Your task to perform on an android device: Check the settings for the Google Play Books app Image 0: 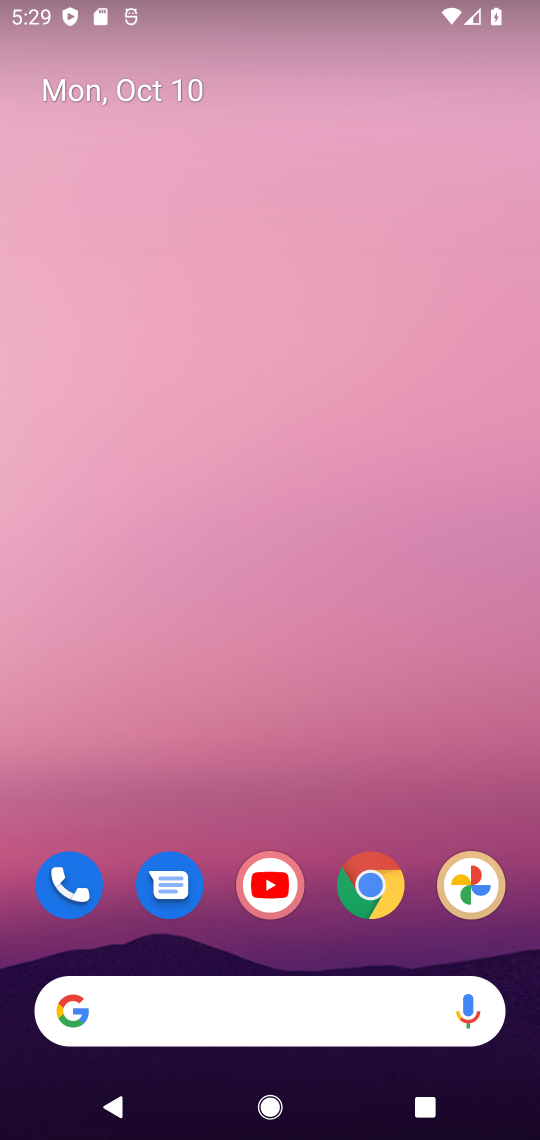
Step 0: drag from (363, 952) to (358, 583)
Your task to perform on an android device: Check the settings for the Google Play Books app Image 1: 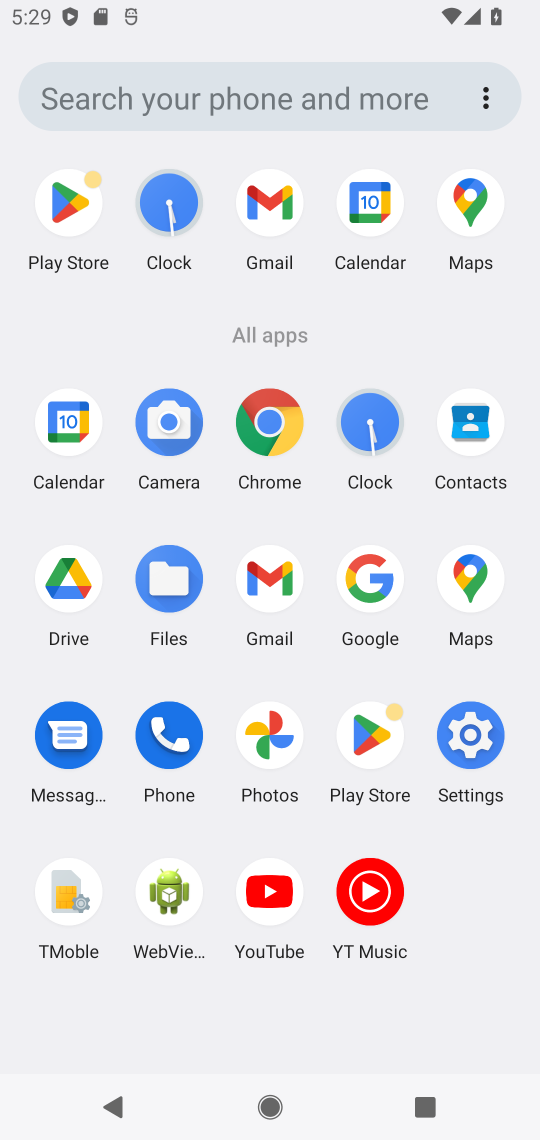
Step 1: click (274, 425)
Your task to perform on an android device: Check the settings for the Google Play Books app Image 2: 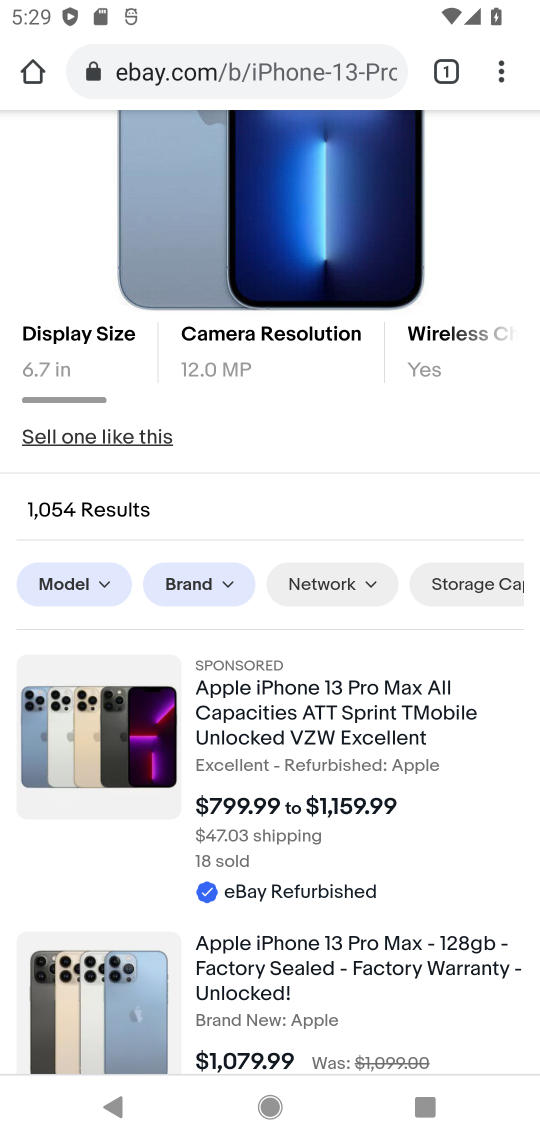
Step 2: click (264, 1112)
Your task to perform on an android device: Check the settings for the Google Play Books app Image 3: 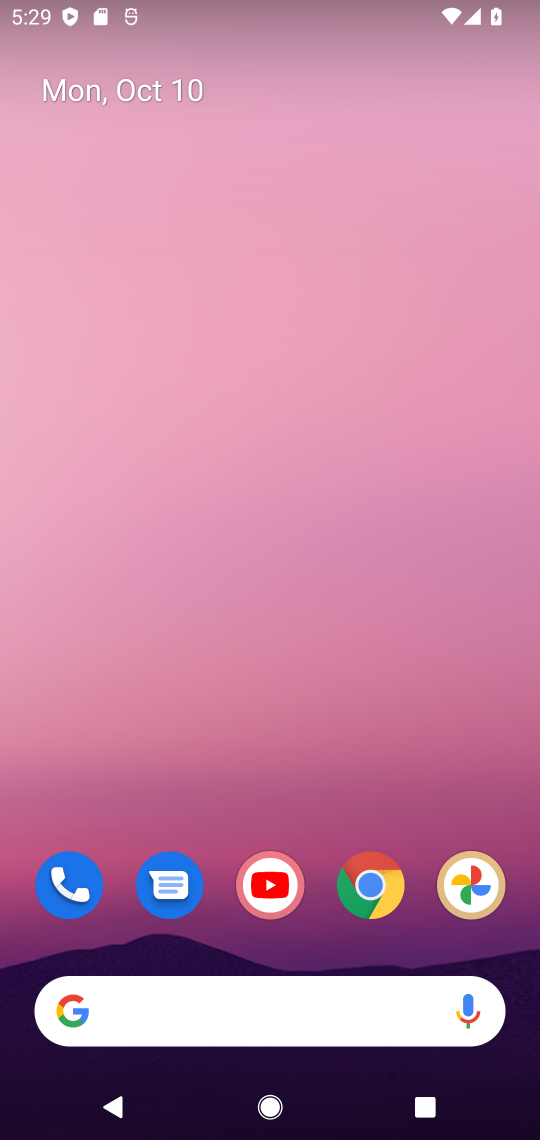
Step 3: drag from (294, 938) to (278, 332)
Your task to perform on an android device: Check the settings for the Google Play Books app Image 4: 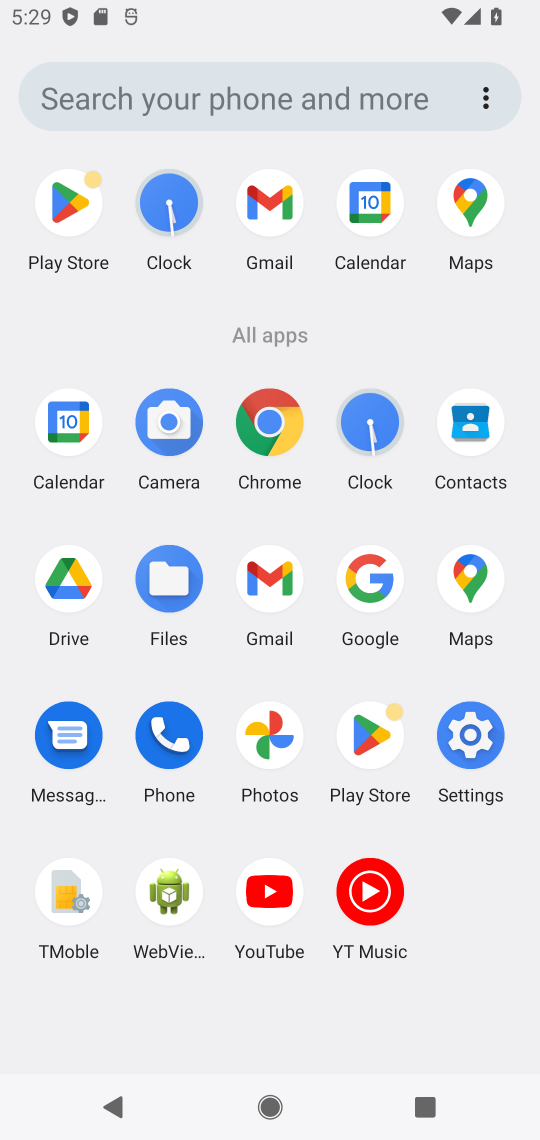
Step 4: click (363, 728)
Your task to perform on an android device: Check the settings for the Google Play Books app Image 5: 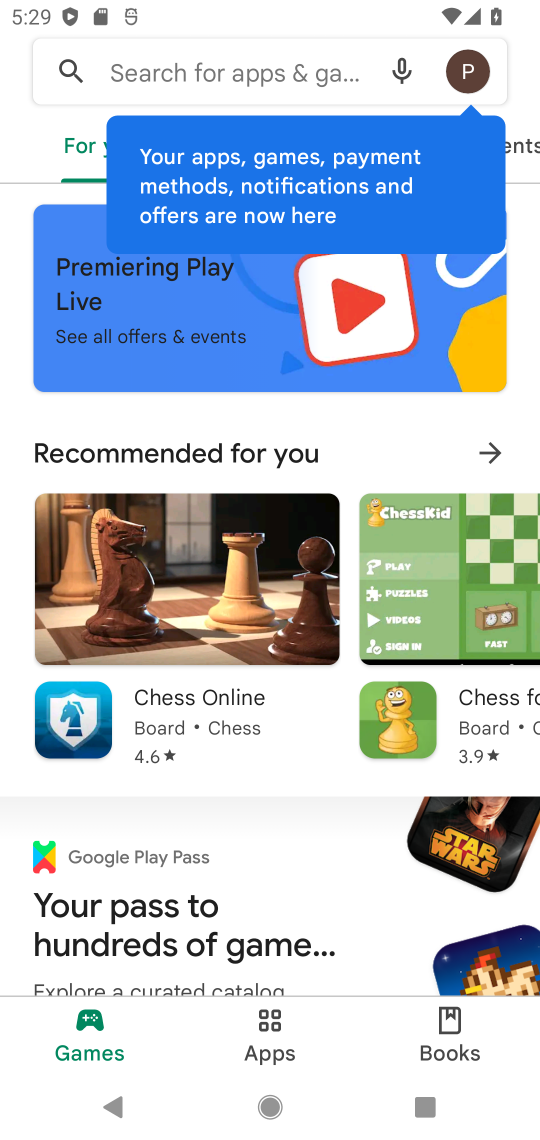
Step 5: click (285, 75)
Your task to perform on an android device: Check the settings for the Google Play Books app Image 6: 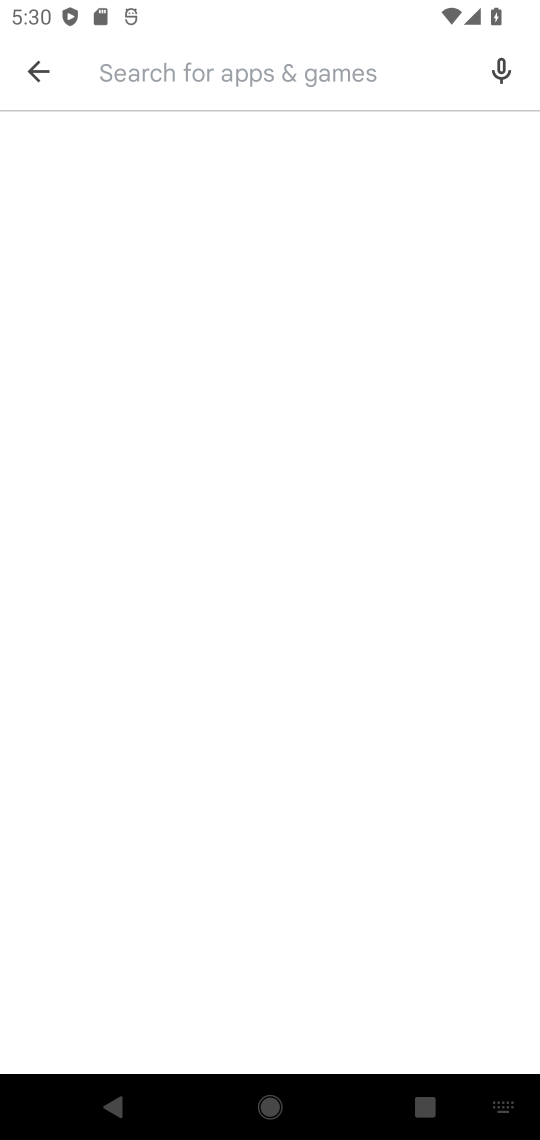
Step 6: type "Google Play Books"
Your task to perform on an android device: Check the settings for the Google Play Books app Image 7: 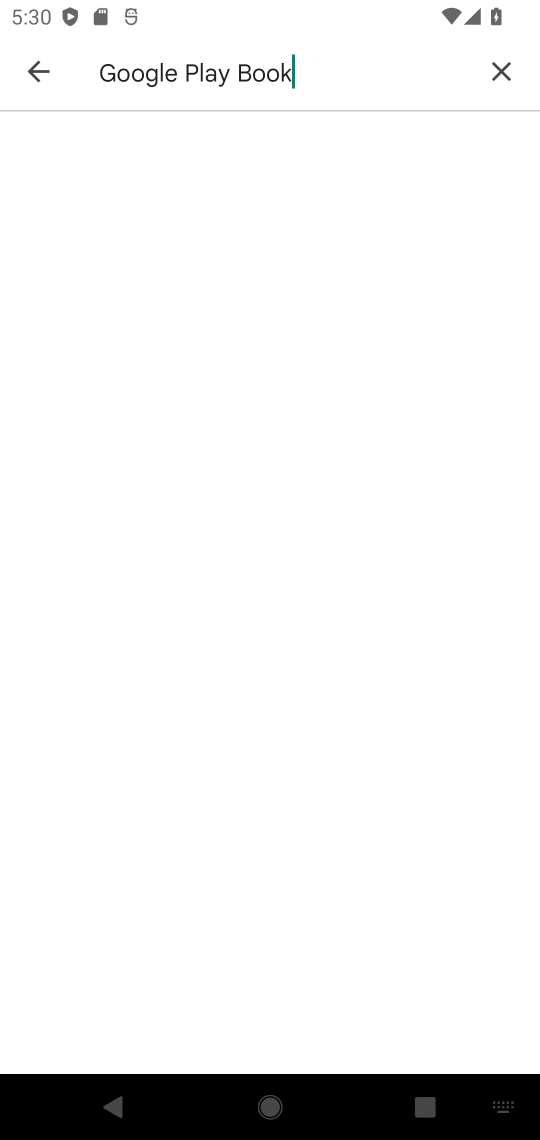
Step 7: type ""
Your task to perform on an android device: Check the settings for the Google Play Books app Image 8: 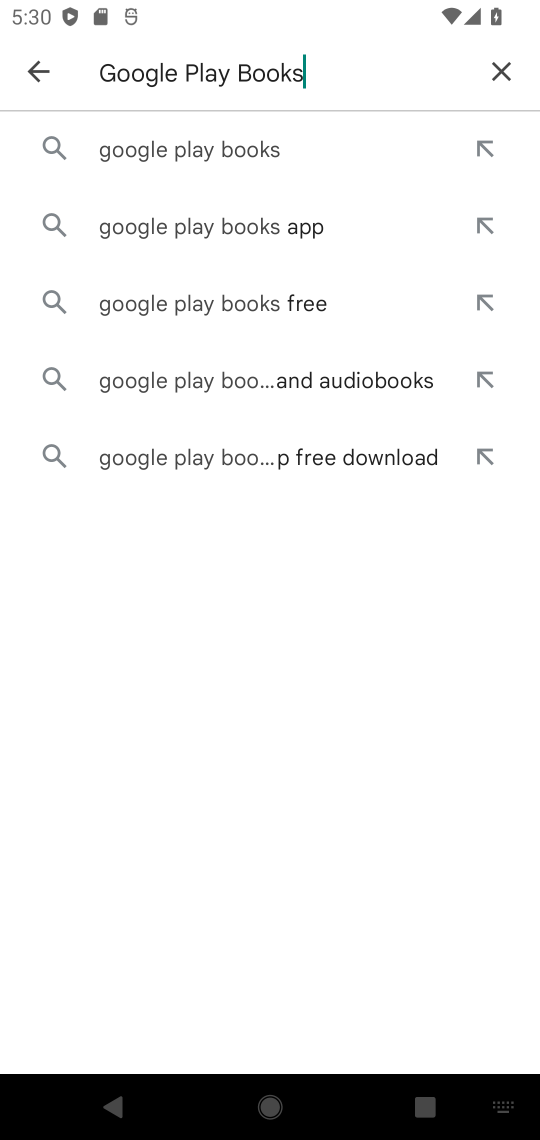
Step 8: click (262, 140)
Your task to perform on an android device: Check the settings for the Google Play Books app Image 9: 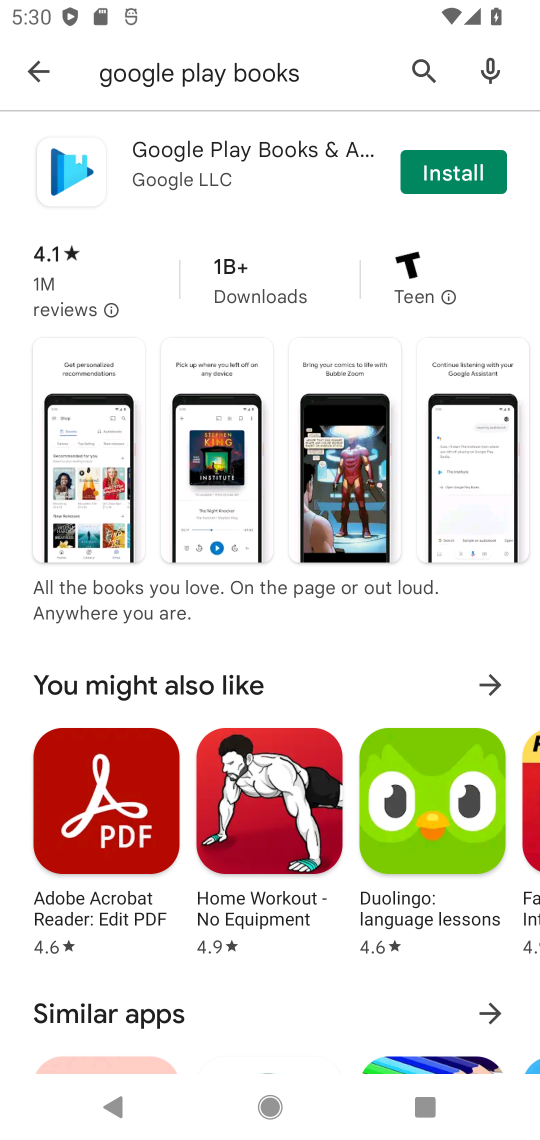
Step 9: click (437, 175)
Your task to perform on an android device: Check the settings for the Google Play Books app Image 10: 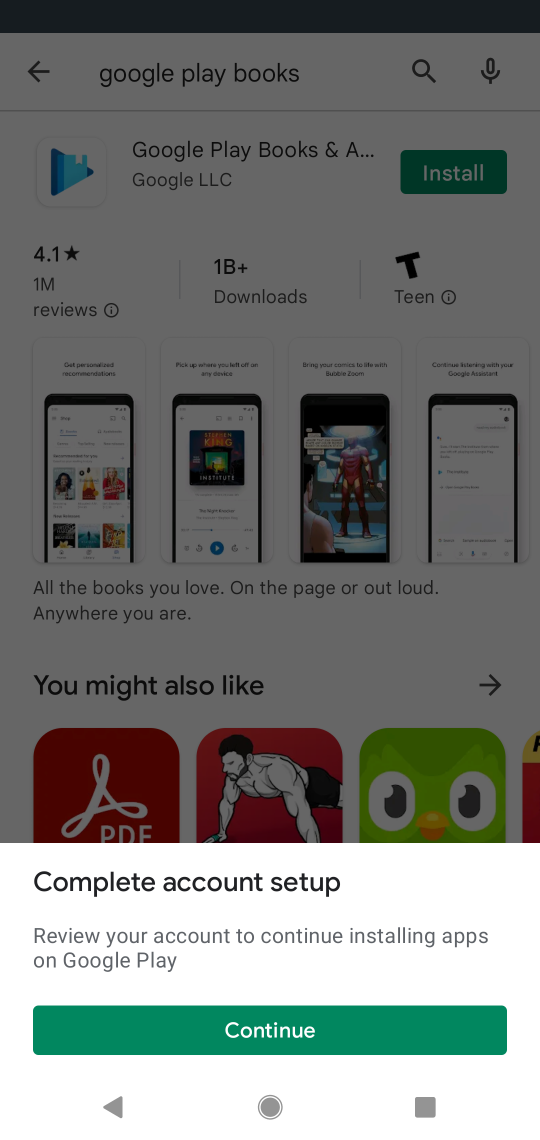
Step 10: click (344, 1031)
Your task to perform on an android device: Check the settings for the Google Play Books app Image 11: 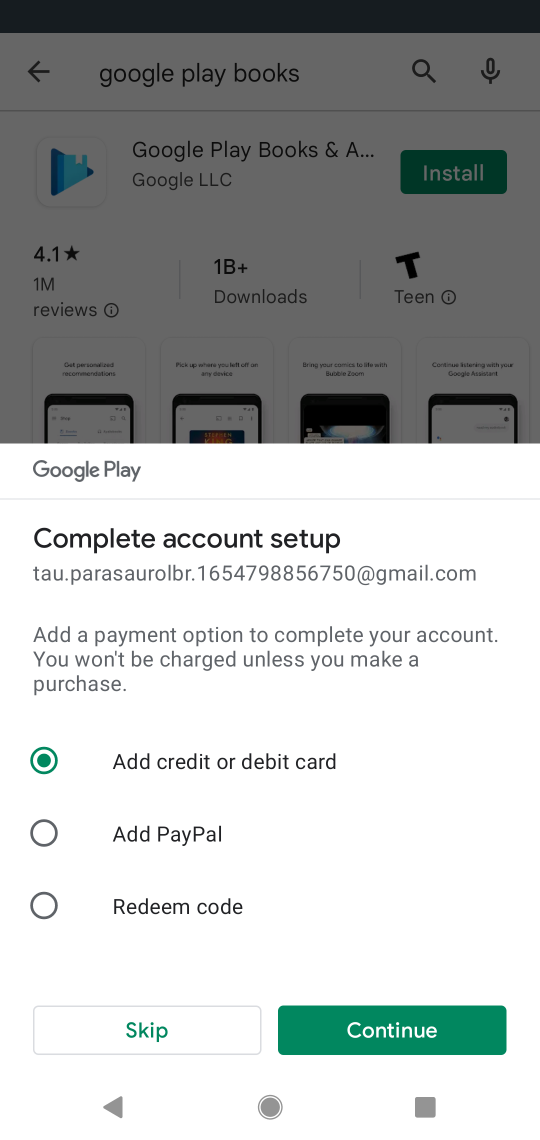
Step 11: click (166, 1043)
Your task to perform on an android device: Check the settings for the Google Play Books app Image 12: 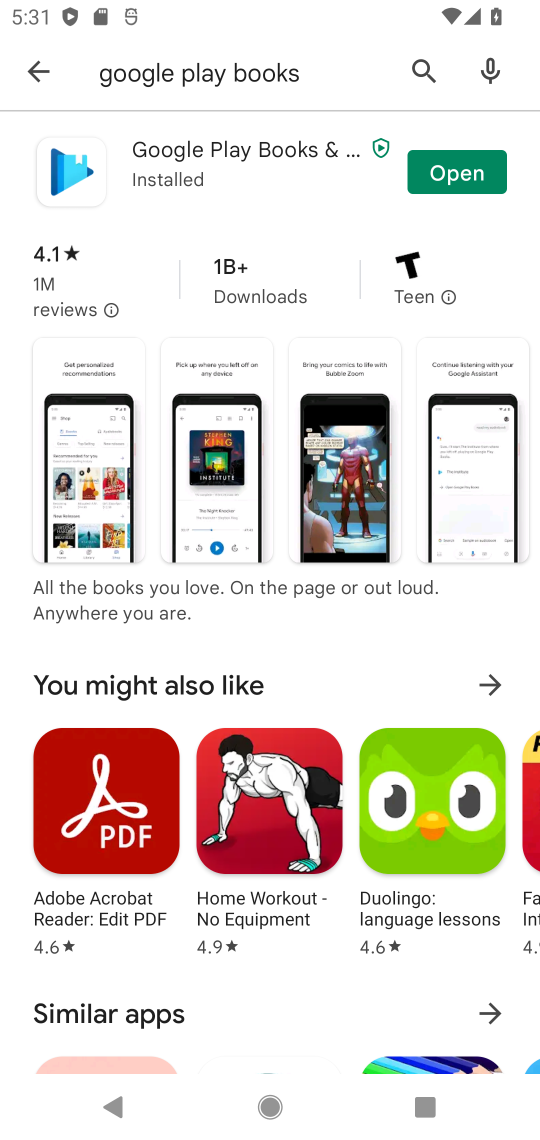
Step 12: click (456, 170)
Your task to perform on an android device: Check the settings for the Google Play Books app Image 13: 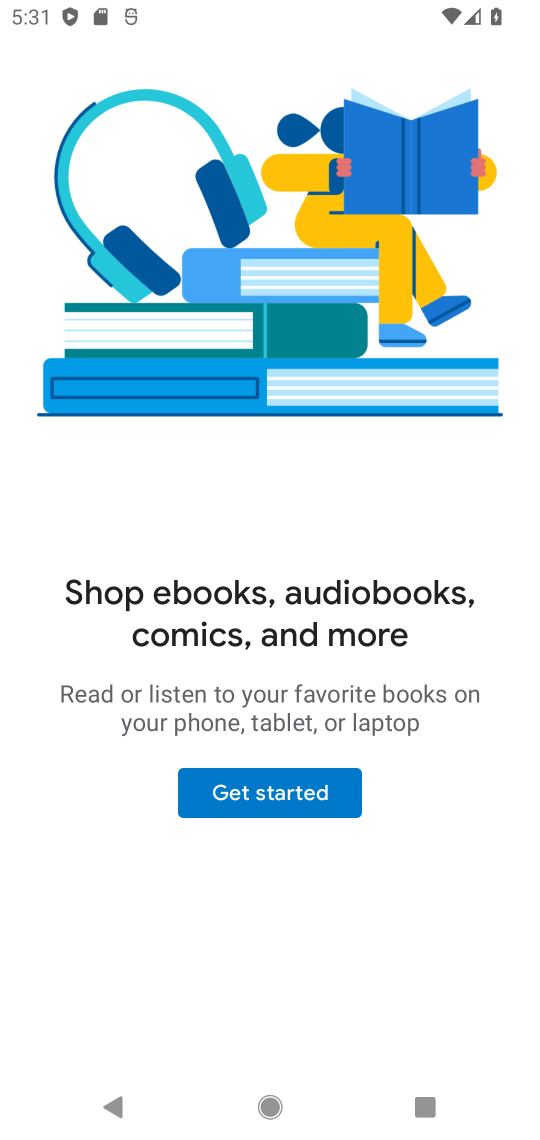
Step 13: click (229, 797)
Your task to perform on an android device: Check the settings for the Google Play Books app Image 14: 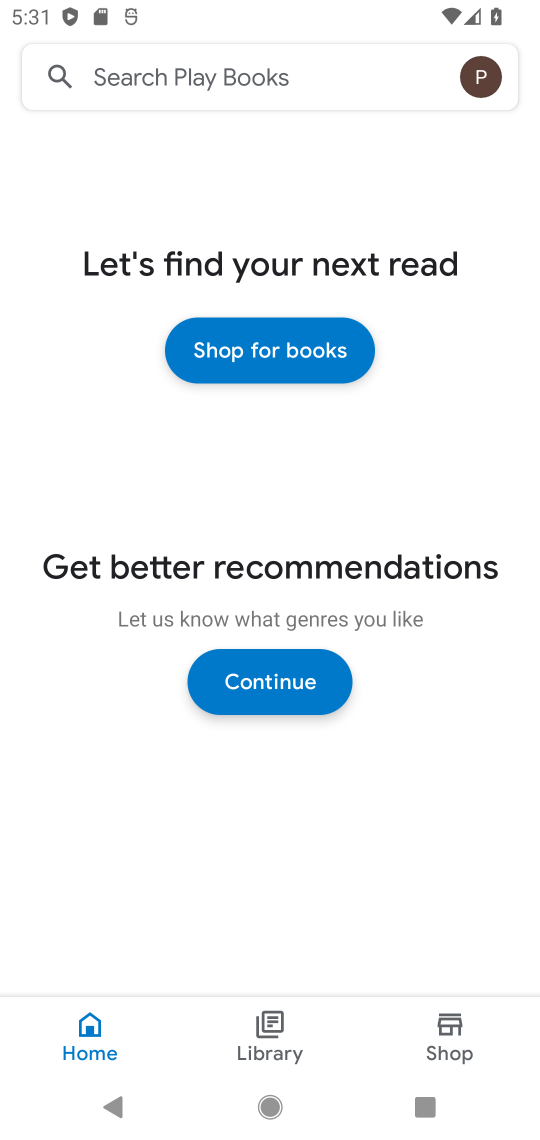
Step 14: click (481, 90)
Your task to perform on an android device: Check the settings for the Google Play Books app Image 15: 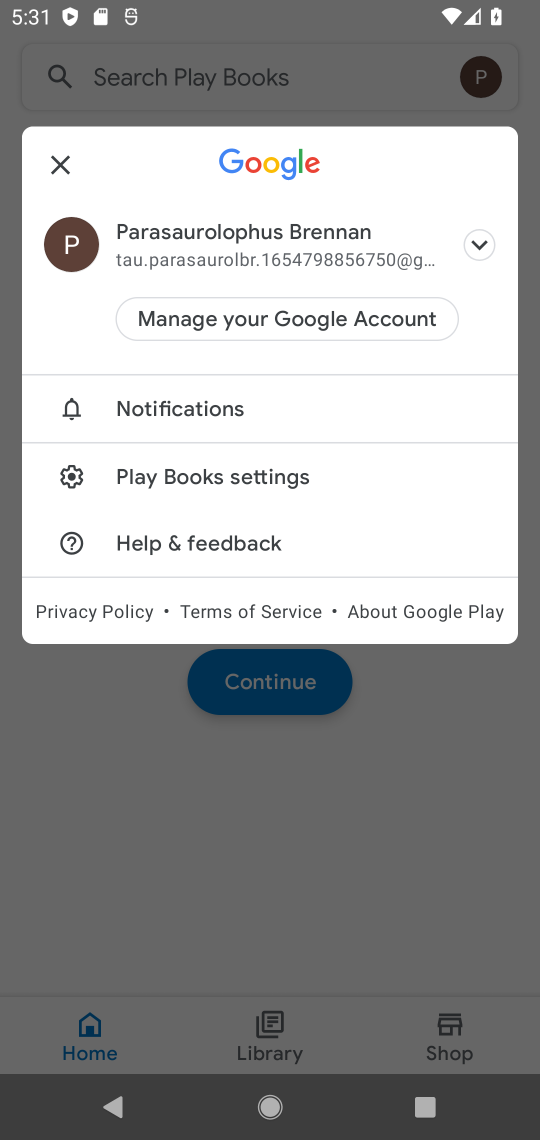
Step 15: click (105, 659)
Your task to perform on an android device: Check the settings for the Google Play Books app Image 16: 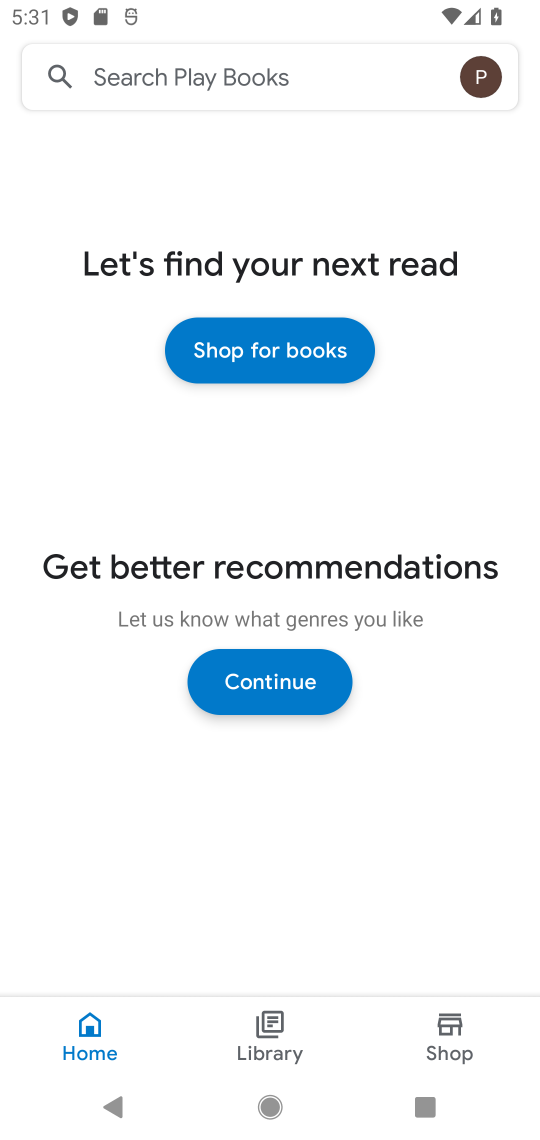
Step 16: click (275, 685)
Your task to perform on an android device: Check the settings for the Google Play Books app Image 17: 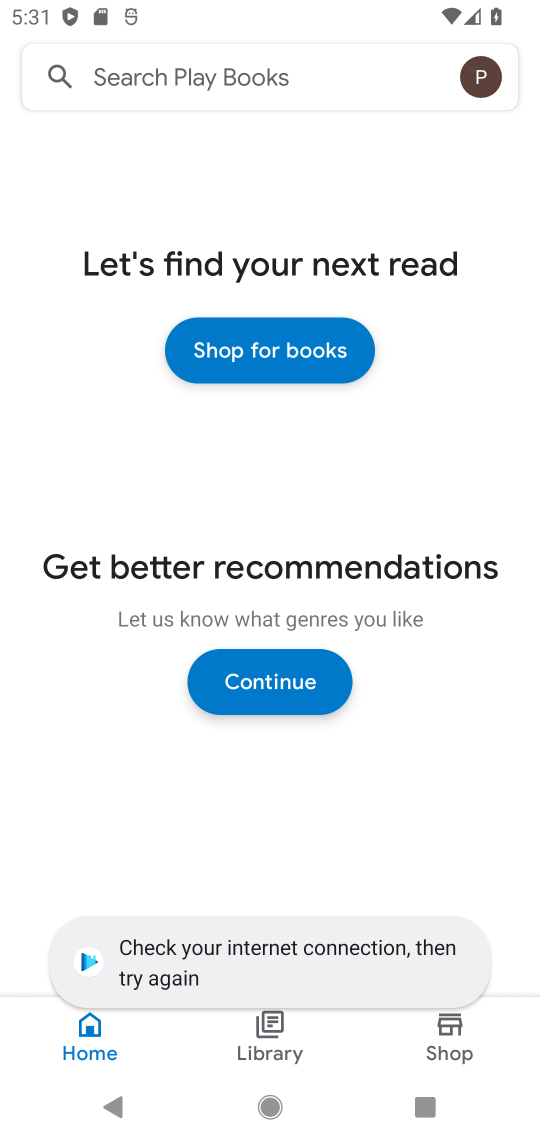
Step 17: click (490, 75)
Your task to perform on an android device: Check the settings for the Google Play Books app Image 18: 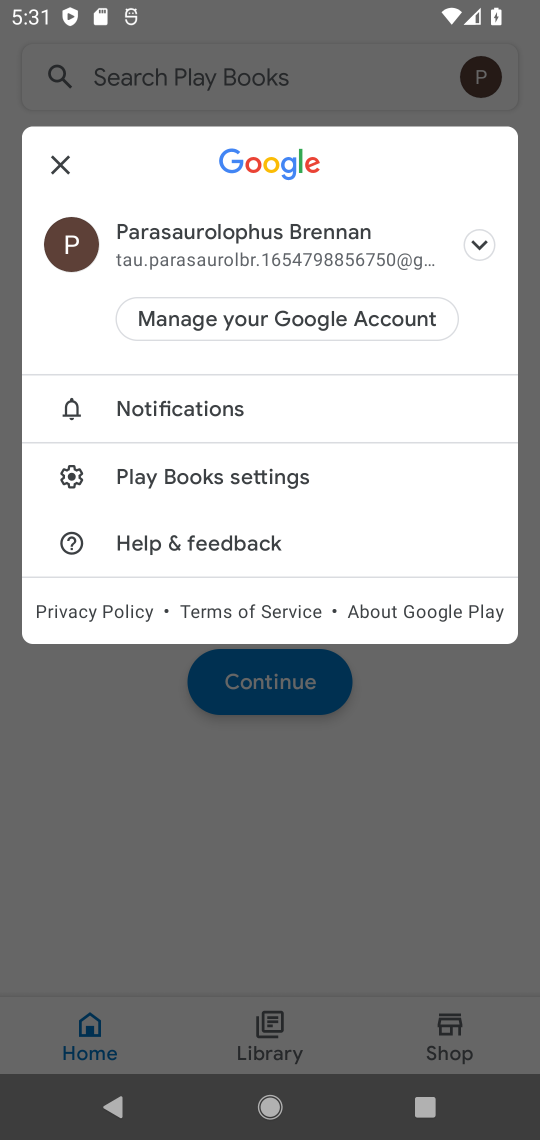
Step 18: click (64, 159)
Your task to perform on an android device: Check the settings for the Google Play Books app Image 19: 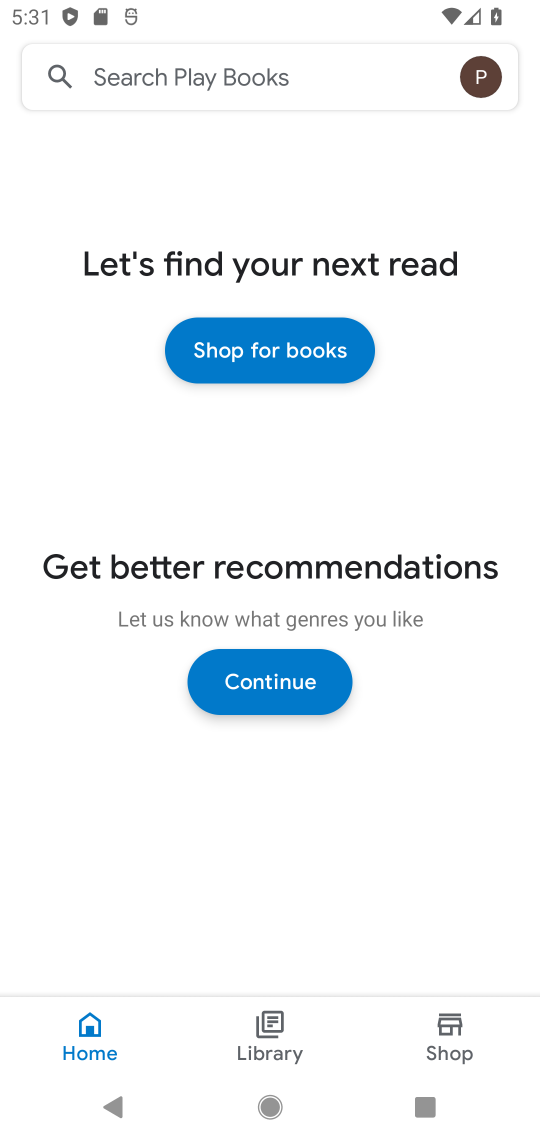
Step 19: click (285, 1023)
Your task to perform on an android device: Check the settings for the Google Play Books app Image 20: 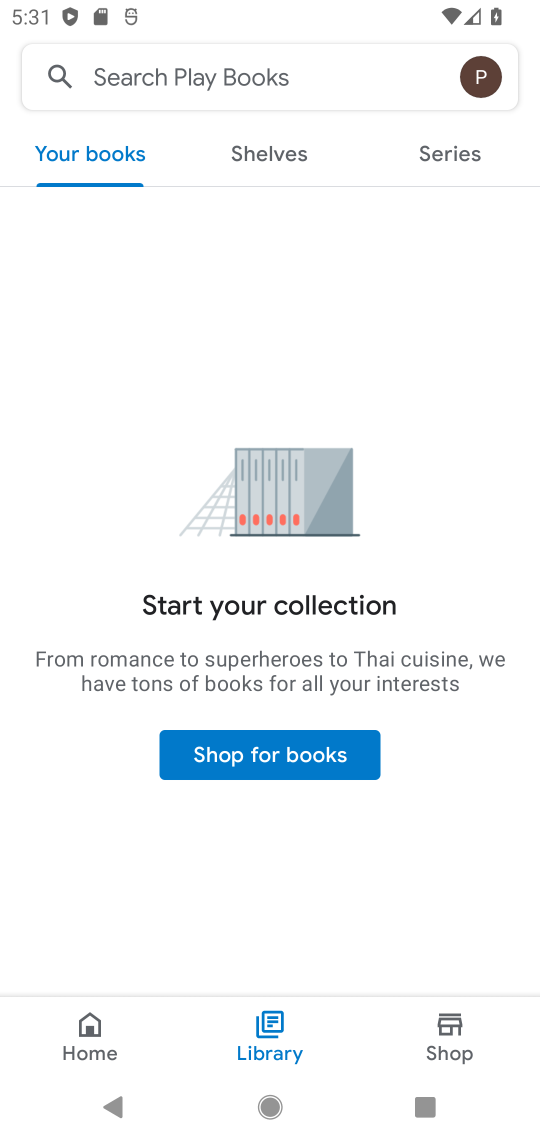
Step 20: click (475, 91)
Your task to perform on an android device: Check the settings for the Google Play Books app Image 21: 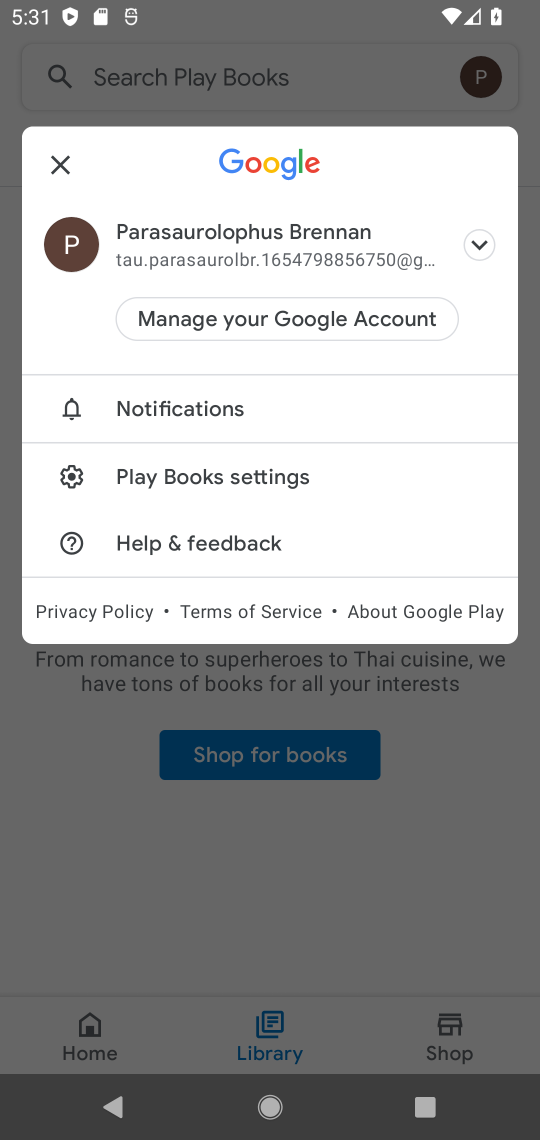
Step 21: click (174, 479)
Your task to perform on an android device: Check the settings for the Google Play Books app Image 22: 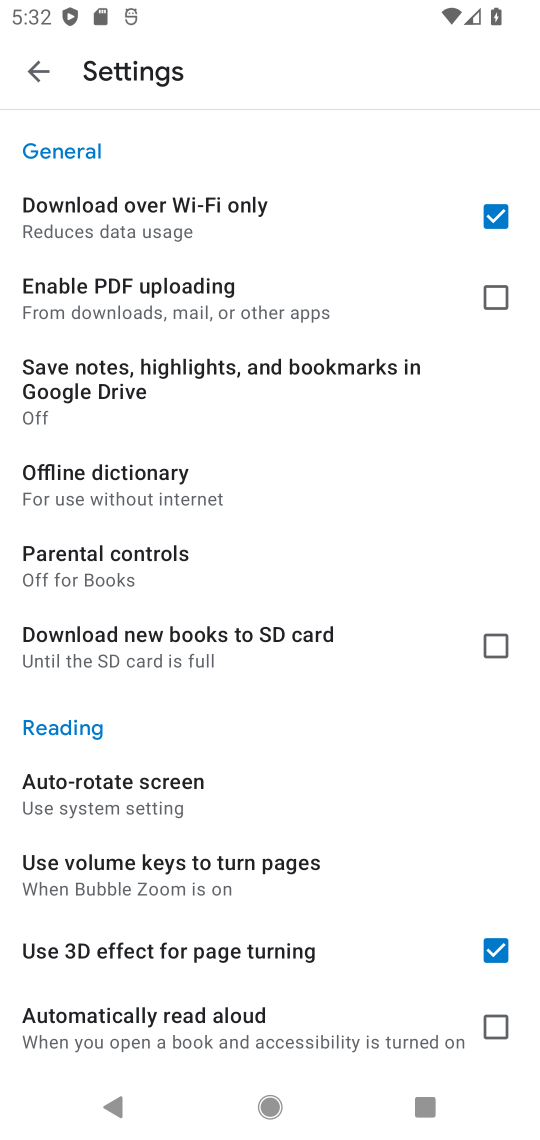
Step 22: task complete